Your task to perform on an android device: Go to Amazon Image 0: 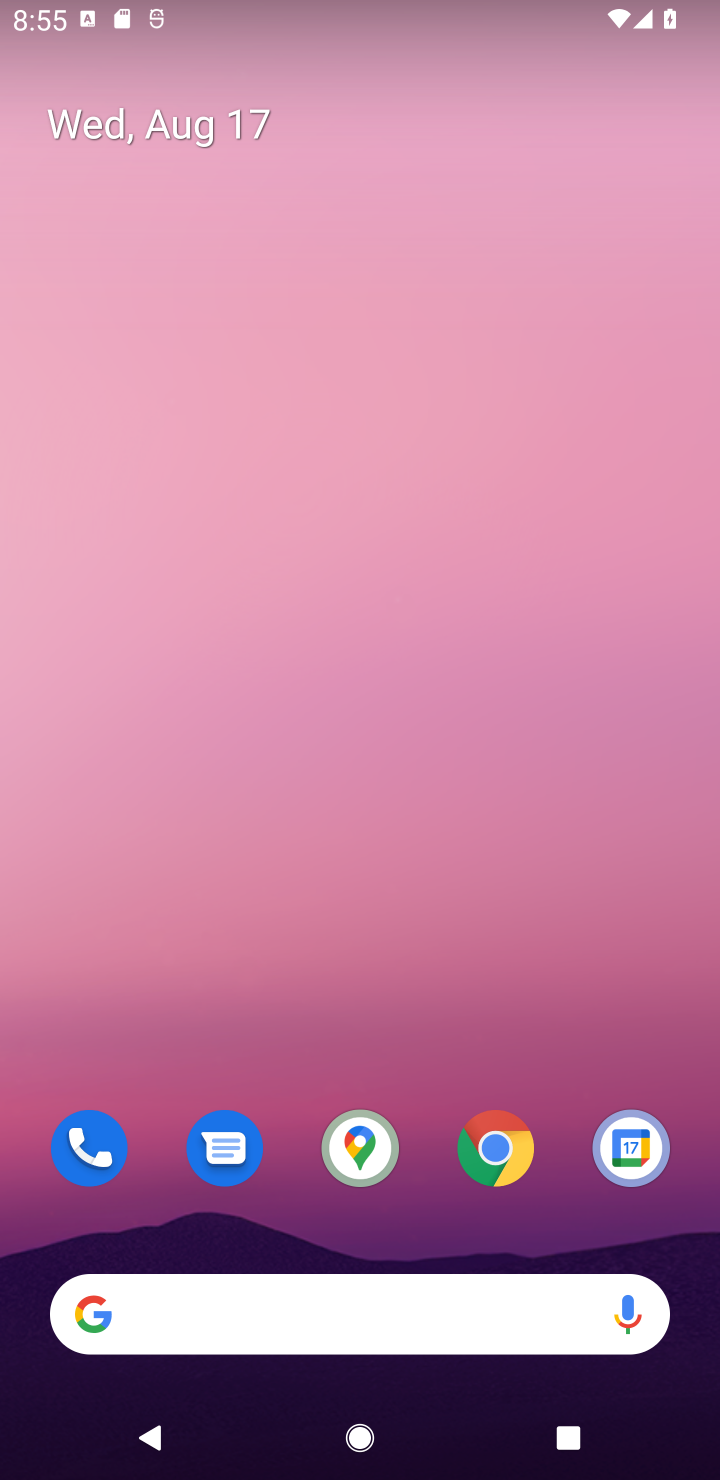
Step 0: click (498, 1153)
Your task to perform on an android device: Go to Amazon Image 1: 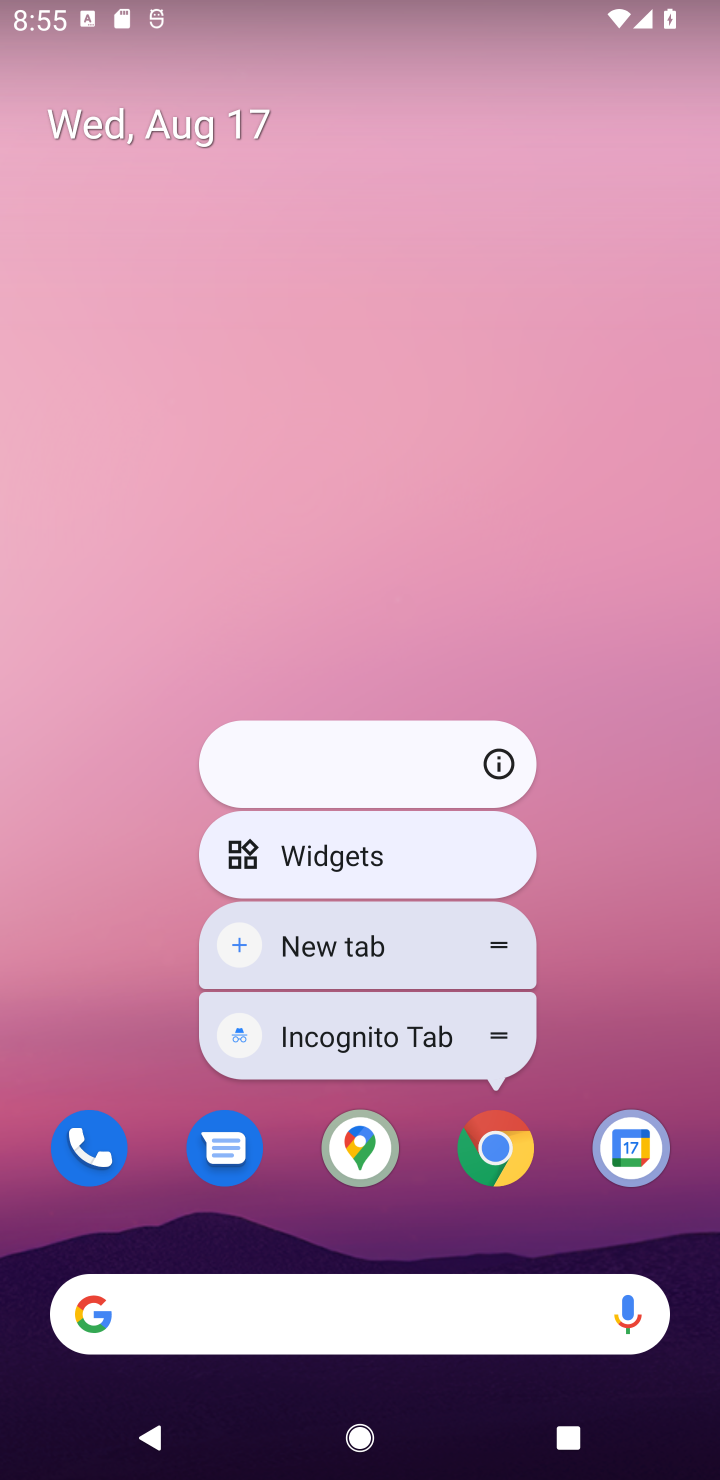
Step 1: click (498, 1153)
Your task to perform on an android device: Go to Amazon Image 2: 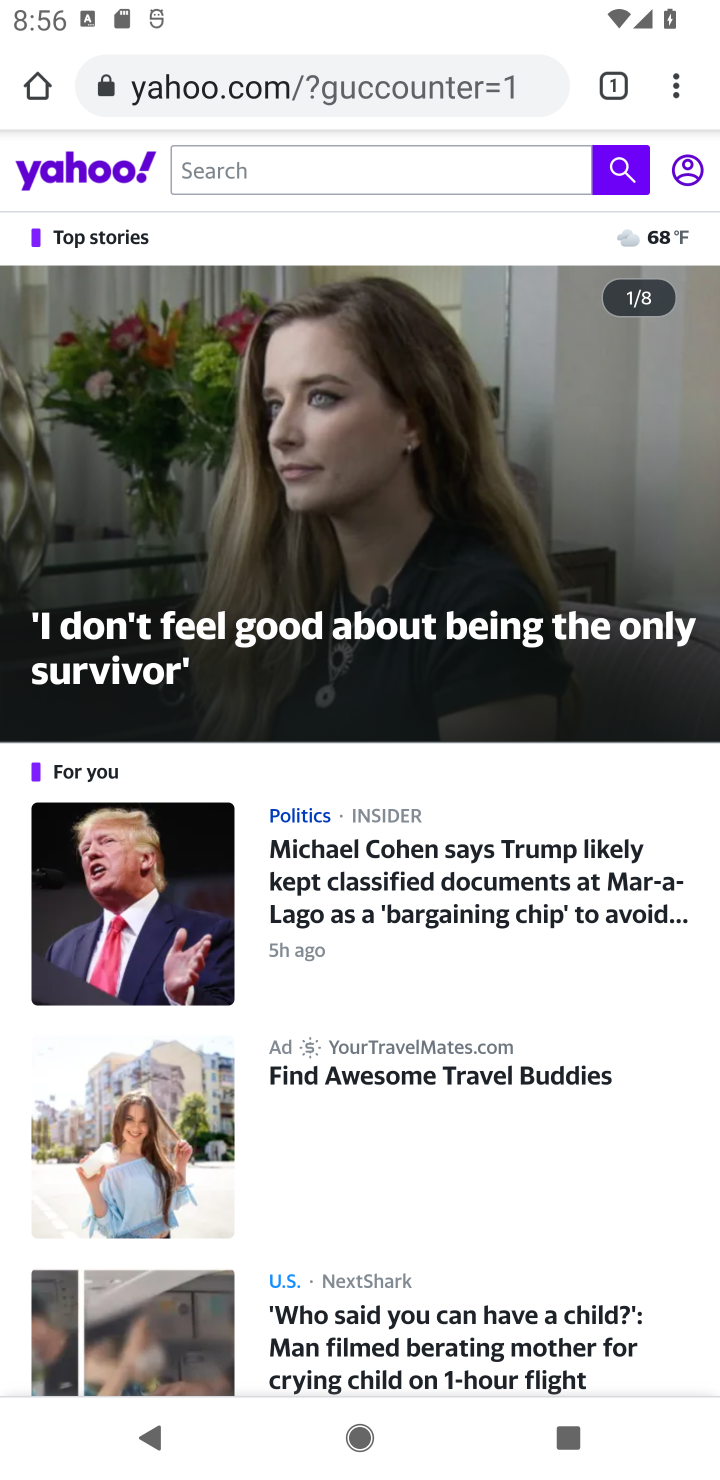
Step 2: click (481, 61)
Your task to perform on an android device: Go to Amazon Image 3: 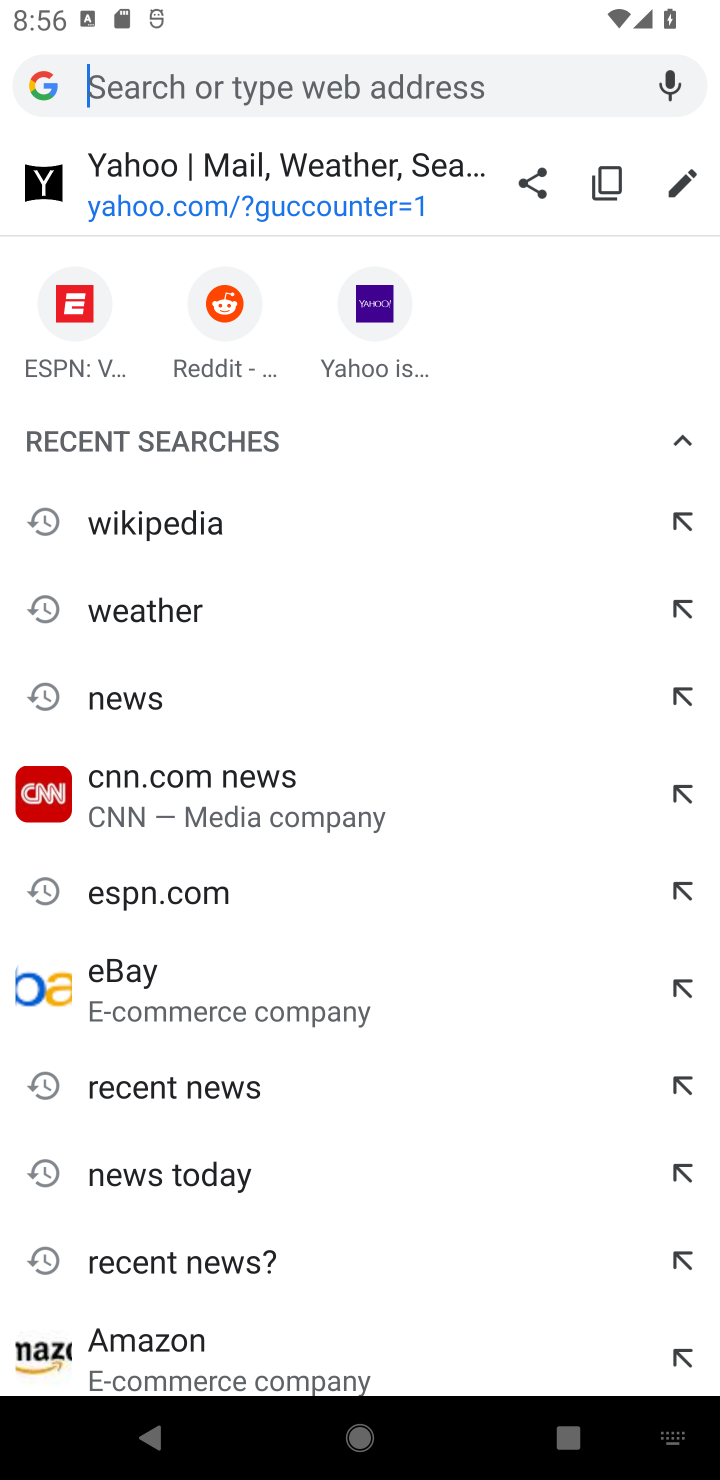
Step 3: type "amazon"
Your task to perform on an android device: Go to Amazon Image 4: 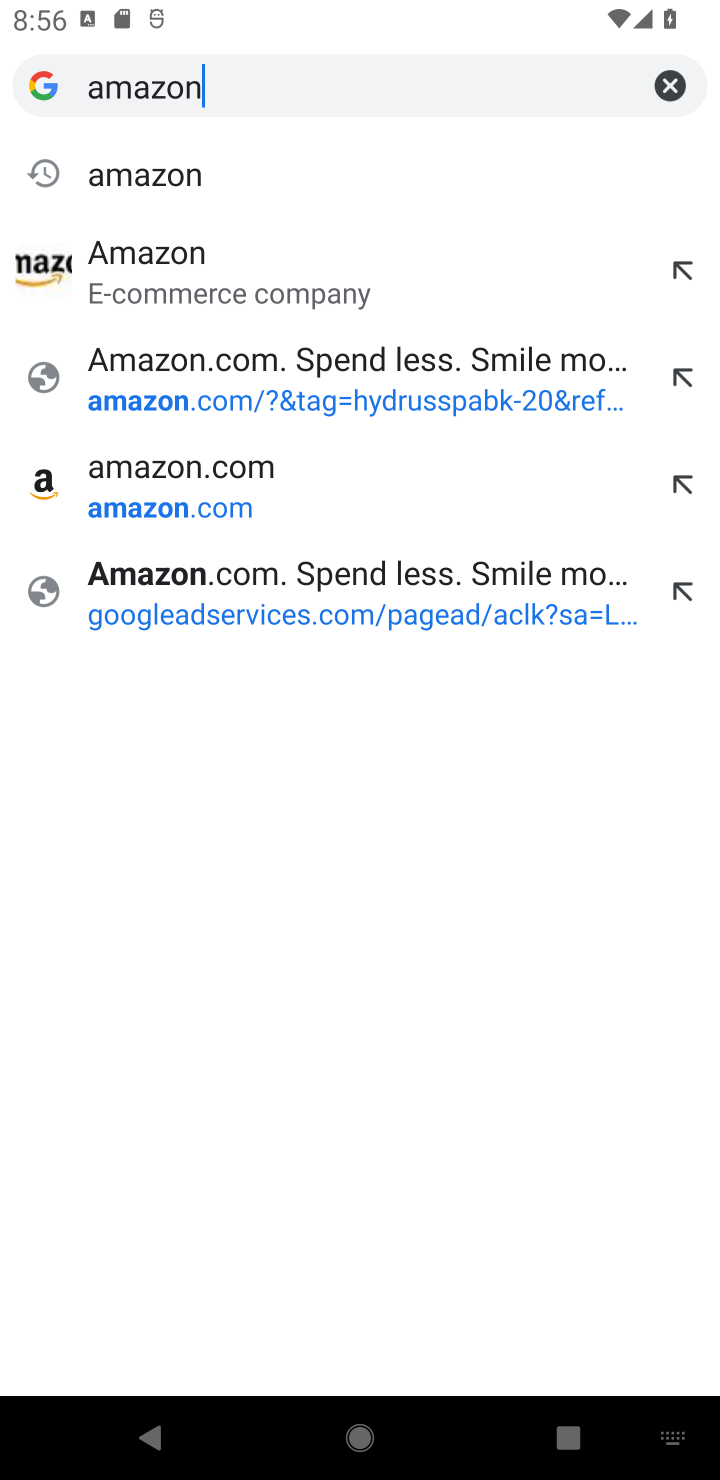
Step 4: click (154, 163)
Your task to perform on an android device: Go to Amazon Image 5: 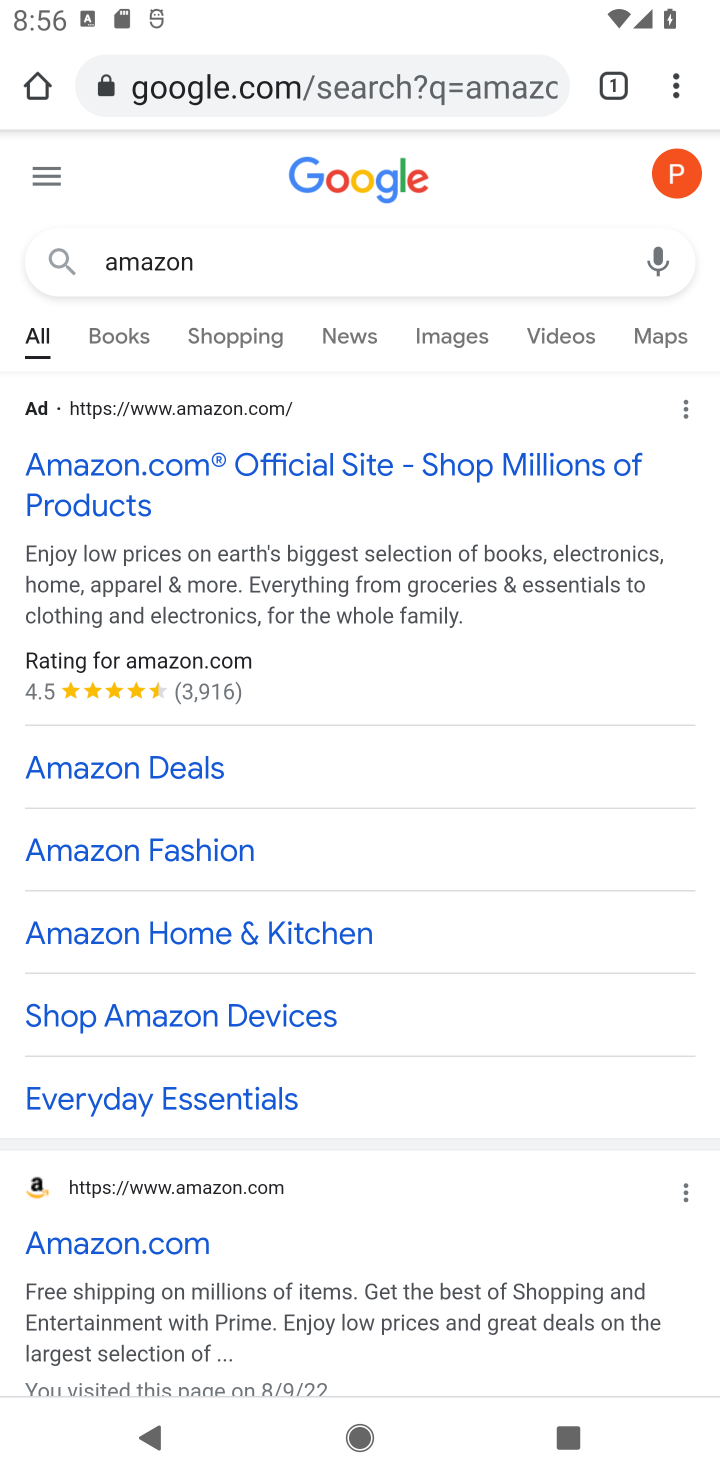
Step 5: click (109, 470)
Your task to perform on an android device: Go to Amazon Image 6: 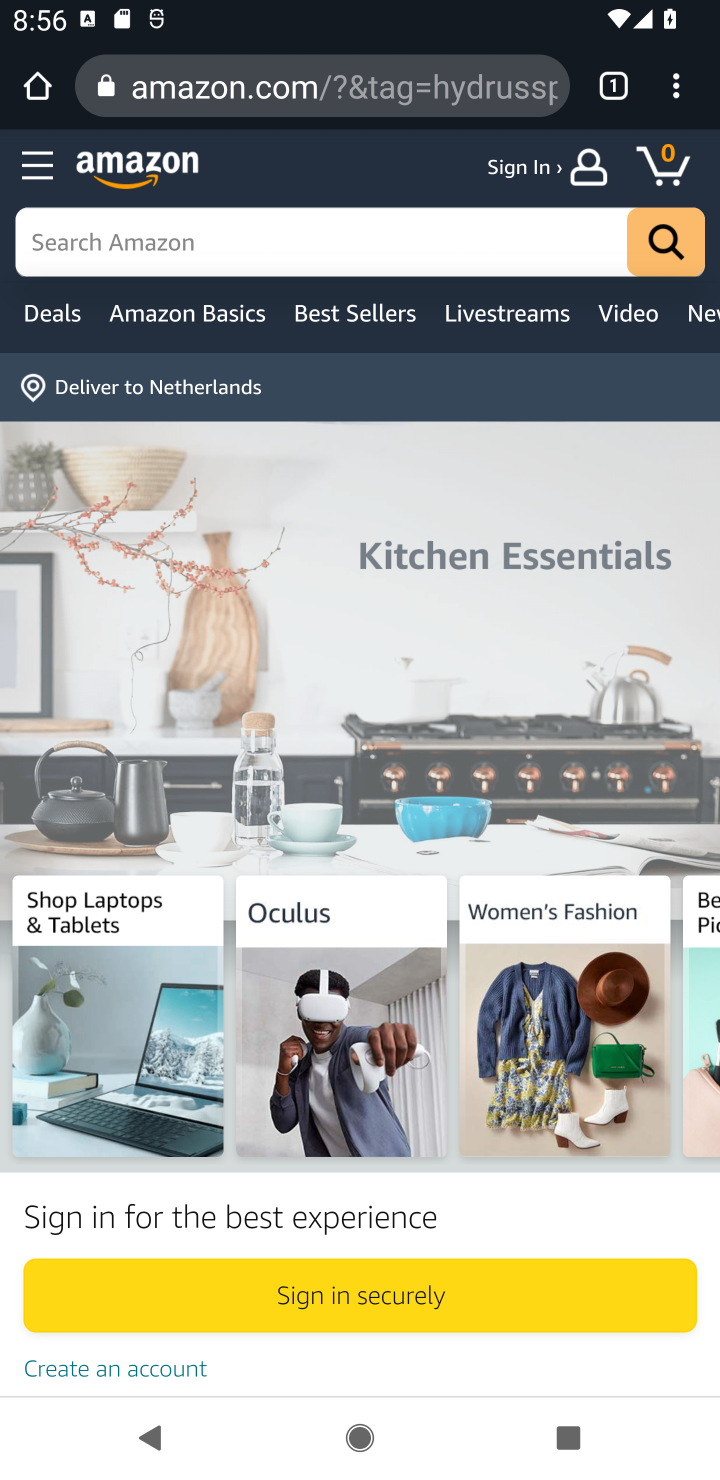
Step 6: task complete